Your task to perform on an android device: Open the phone app and click the voicemail tab. Image 0: 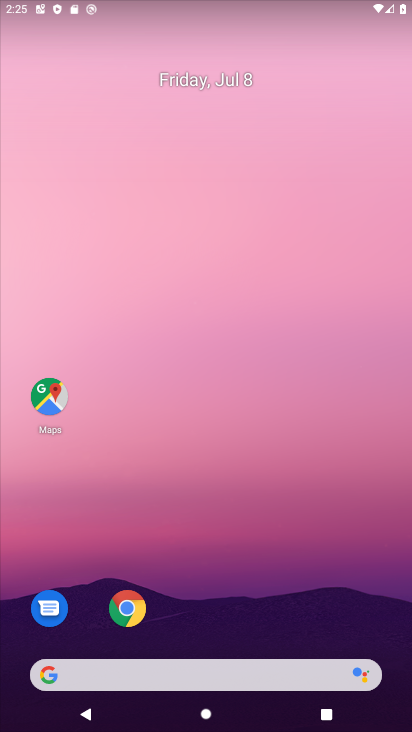
Step 0: drag from (279, 674) to (318, 126)
Your task to perform on an android device: Open the phone app and click the voicemail tab. Image 1: 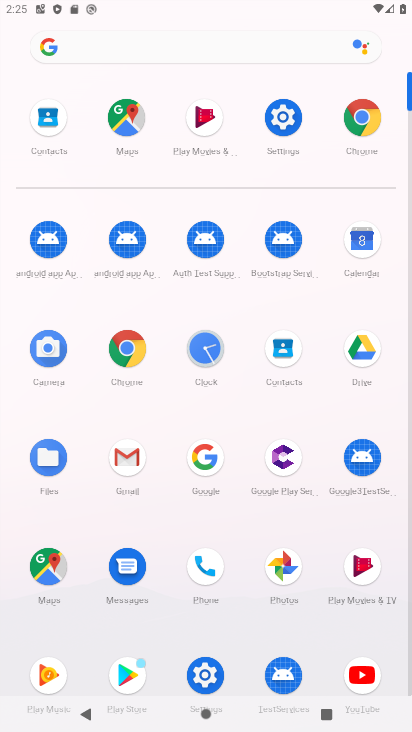
Step 1: click (208, 569)
Your task to perform on an android device: Open the phone app and click the voicemail tab. Image 2: 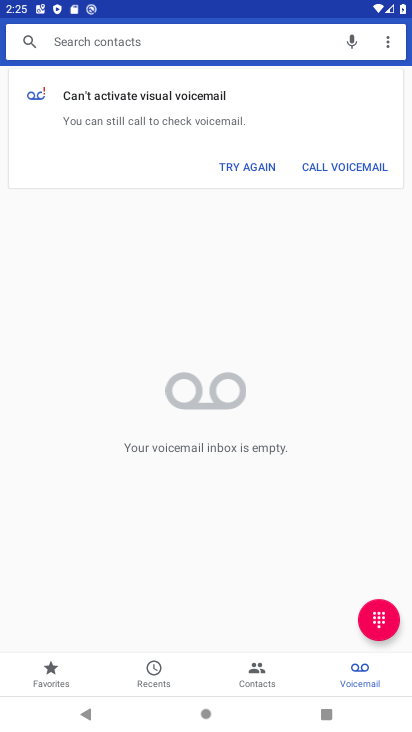
Step 2: task complete